Your task to perform on an android device: Open Wikipedia Image 0: 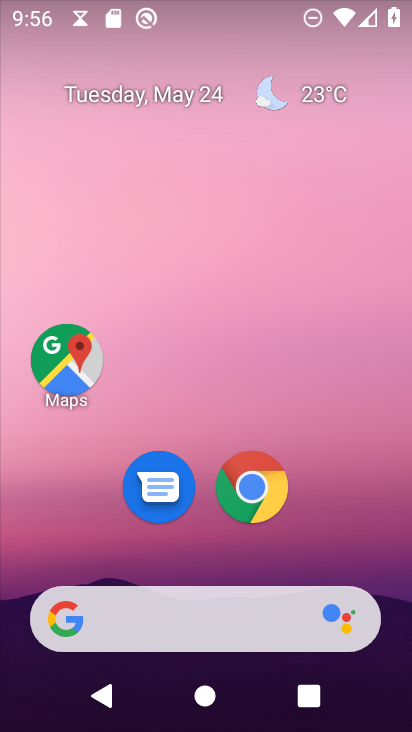
Step 0: click (246, 486)
Your task to perform on an android device: Open Wikipedia Image 1: 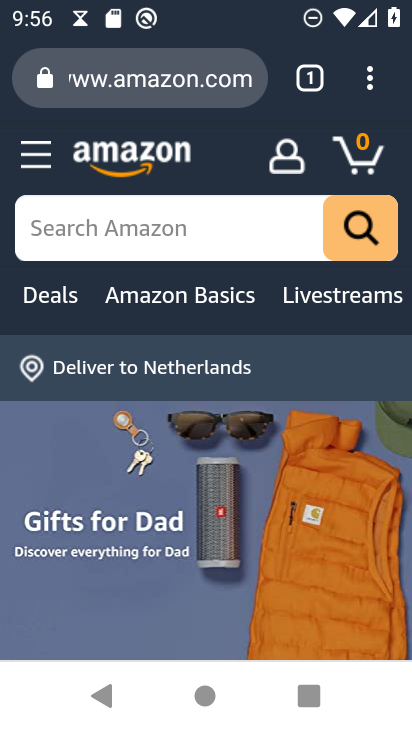
Step 1: click (328, 77)
Your task to perform on an android device: Open Wikipedia Image 2: 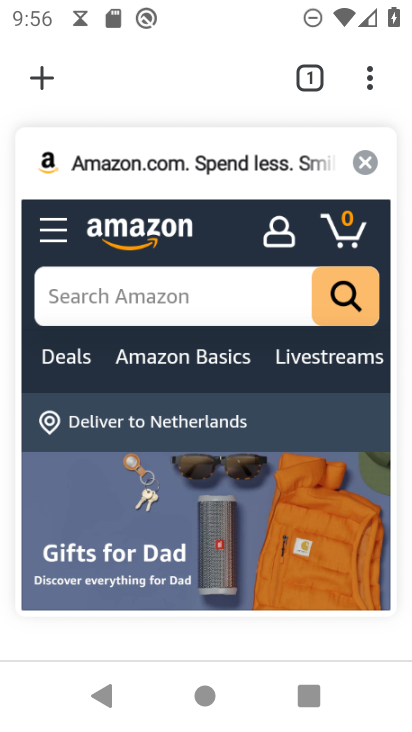
Step 2: click (46, 75)
Your task to perform on an android device: Open Wikipedia Image 3: 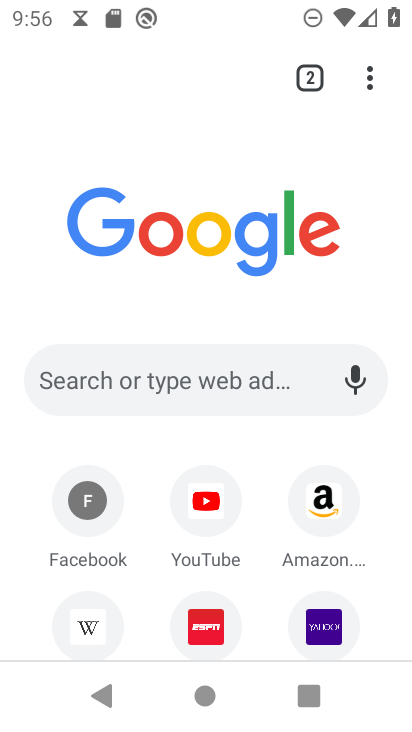
Step 3: click (54, 633)
Your task to perform on an android device: Open Wikipedia Image 4: 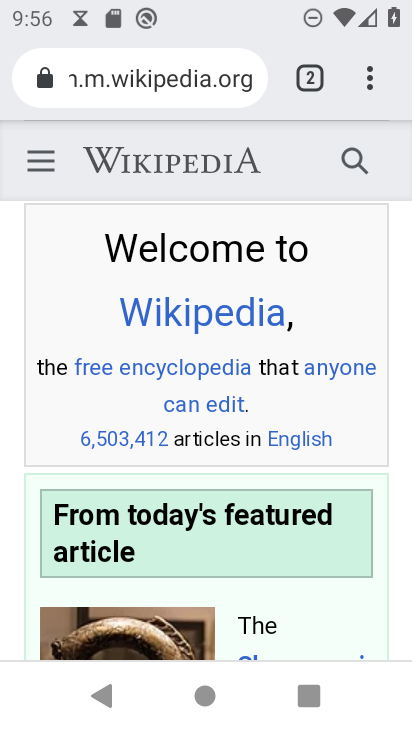
Step 4: task complete